Your task to perform on an android device: change the clock display to analog Image 0: 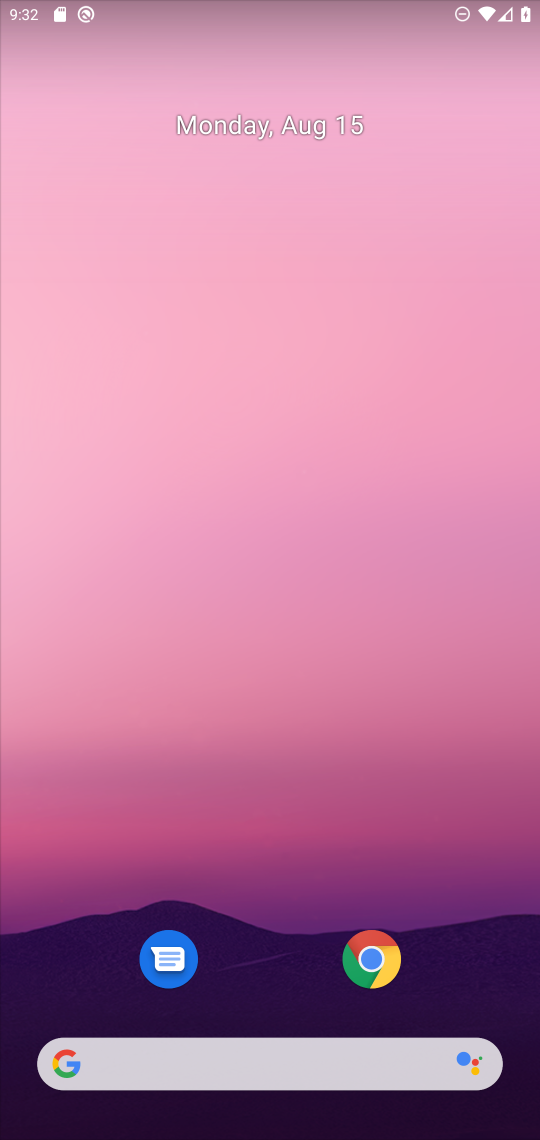
Step 0: drag from (316, 1050) to (203, 147)
Your task to perform on an android device: change the clock display to analog Image 1: 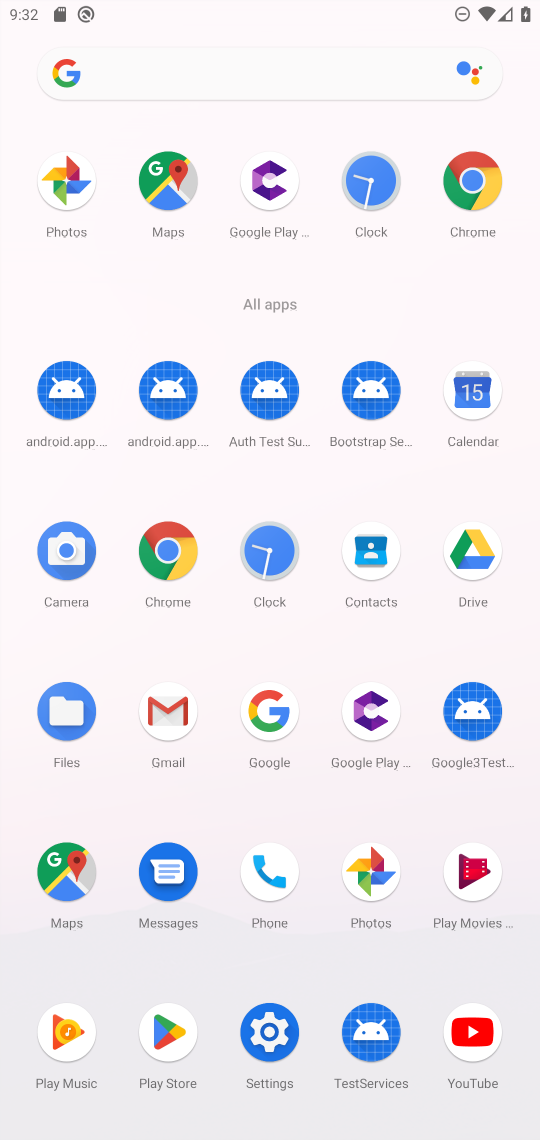
Step 1: click (266, 519)
Your task to perform on an android device: change the clock display to analog Image 2: 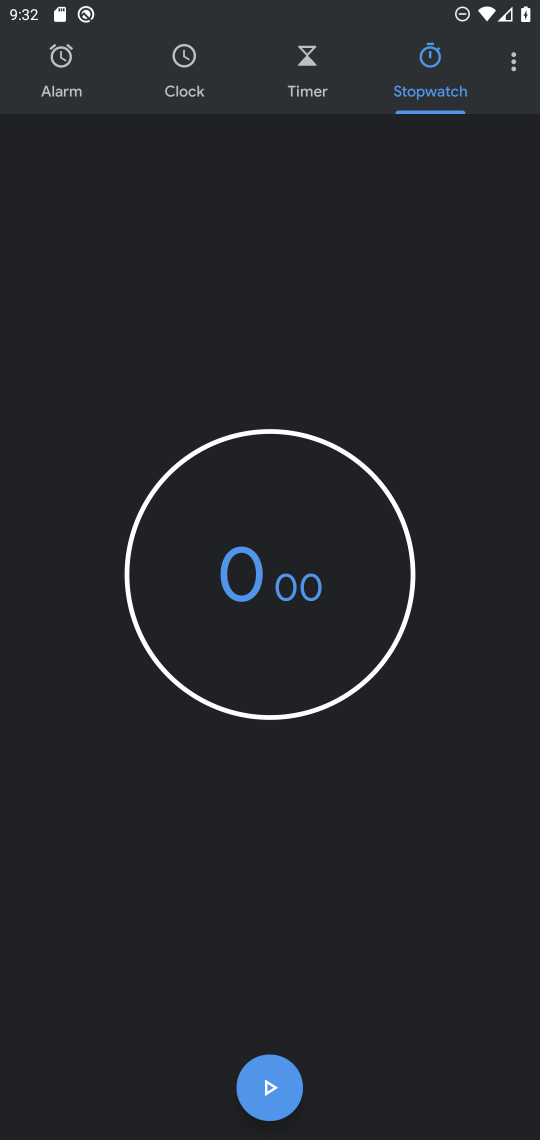
Step 2: click (500, 68)
Your task to perform on an android device: change the clock display to analog Image 3: 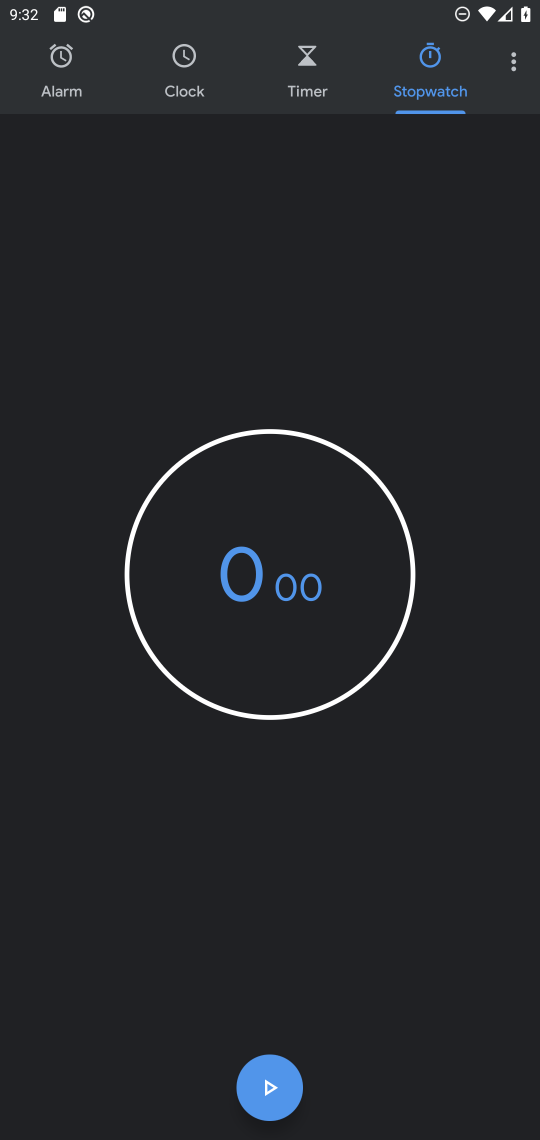
Step 3: click (511, 76)
Your task to perform on an android device: change the clock display to analog Image 4: 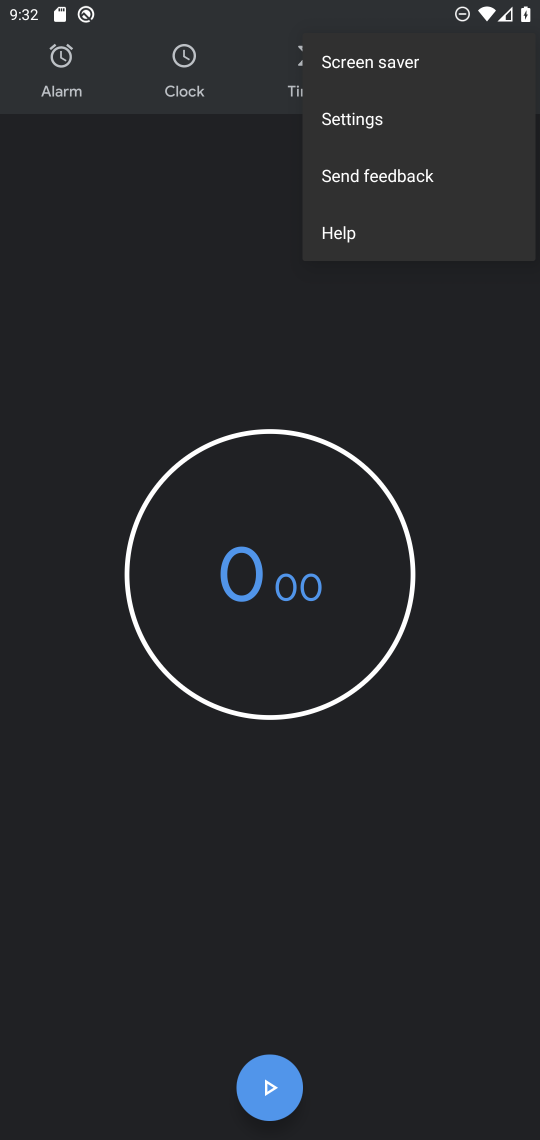
Step 4: click (381, 111)
Your task to perform on an android device: change the clock display to analog Image 5: 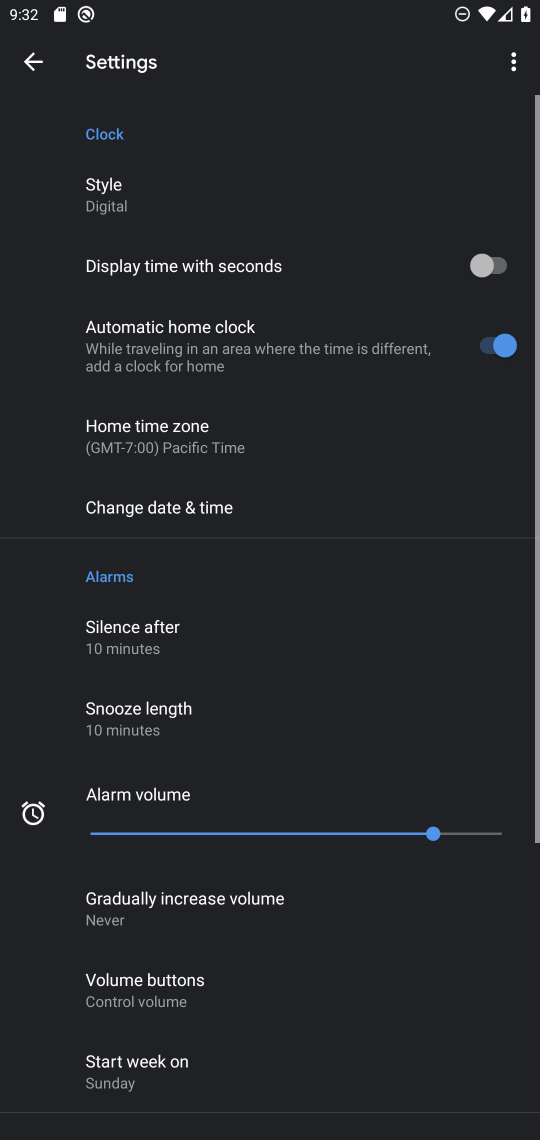
Step 5: click (87, 196)
Your task to perform on an android device: change the clock display to analog Image 6: 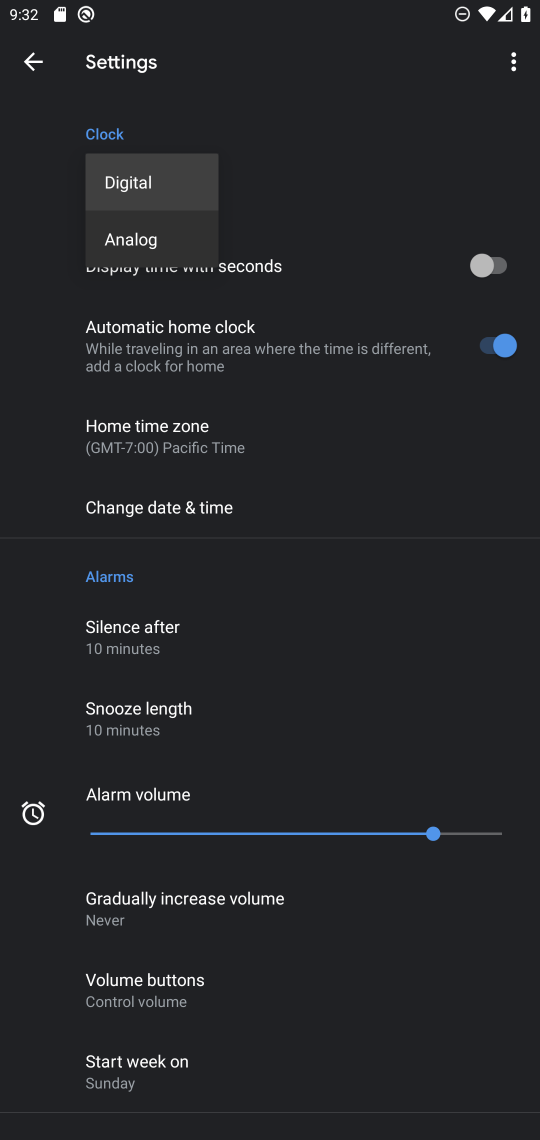
Step 6: click (122, 238)
Your task to perform on an android device: change the clock display to analog Image 7: 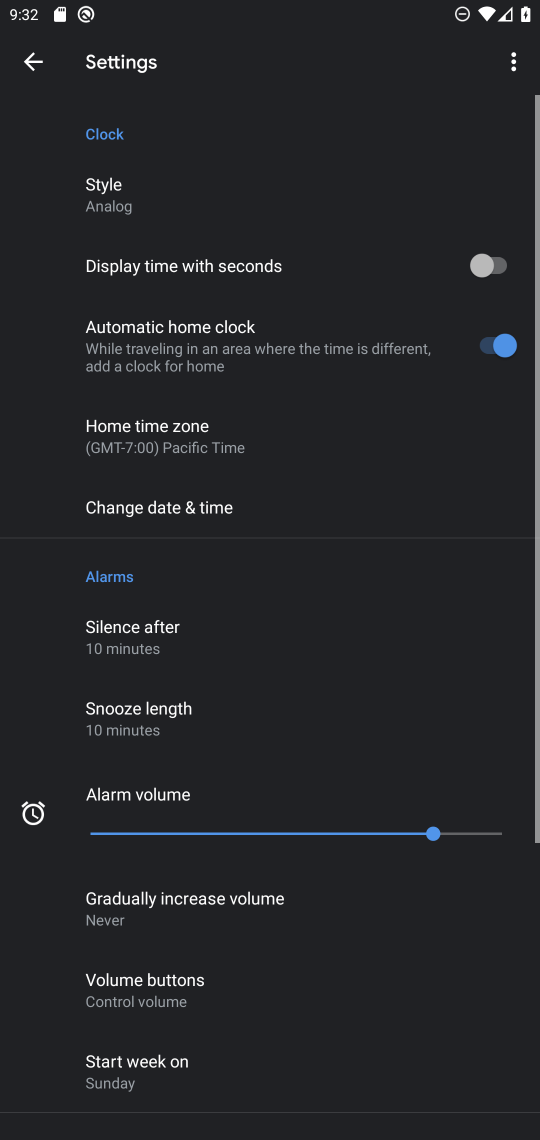
Step 7: task complete